Your task to perform on an android device: open app "The Home Depot" Image 0: 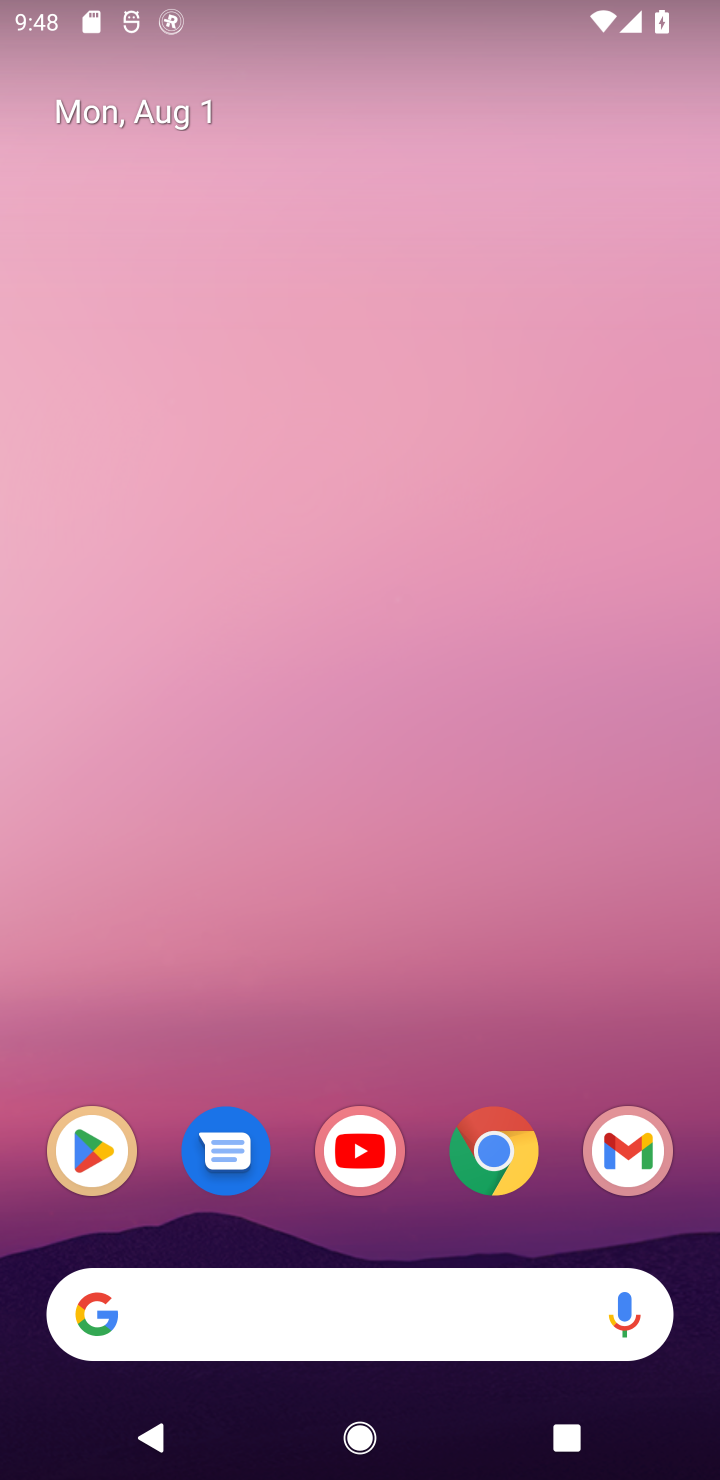
Step 0: click (62, 1175)
Your task to perform on an android device: open app "The Home Depot" Image 1: 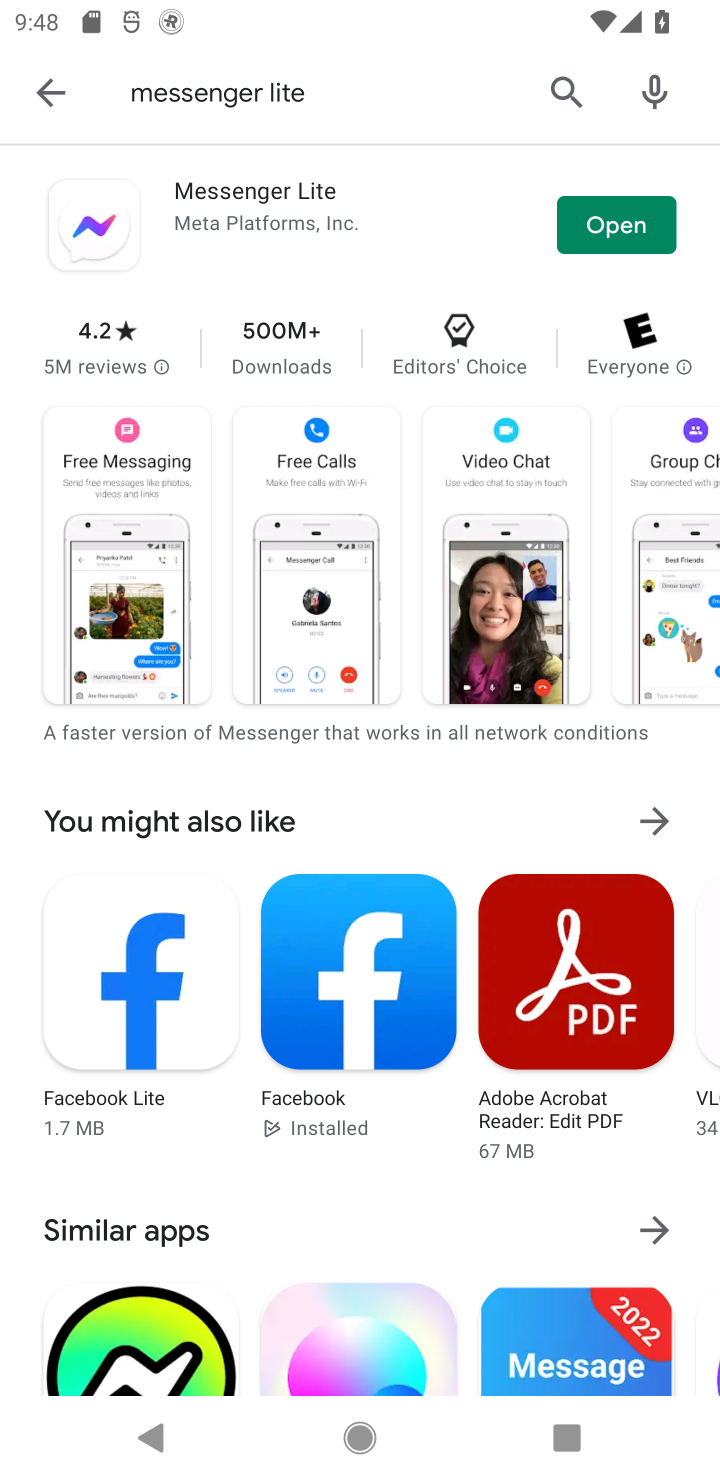
Step 1: click (568, 109)
Your task to perform on an android device: open app "The Home Depot" Image 2: 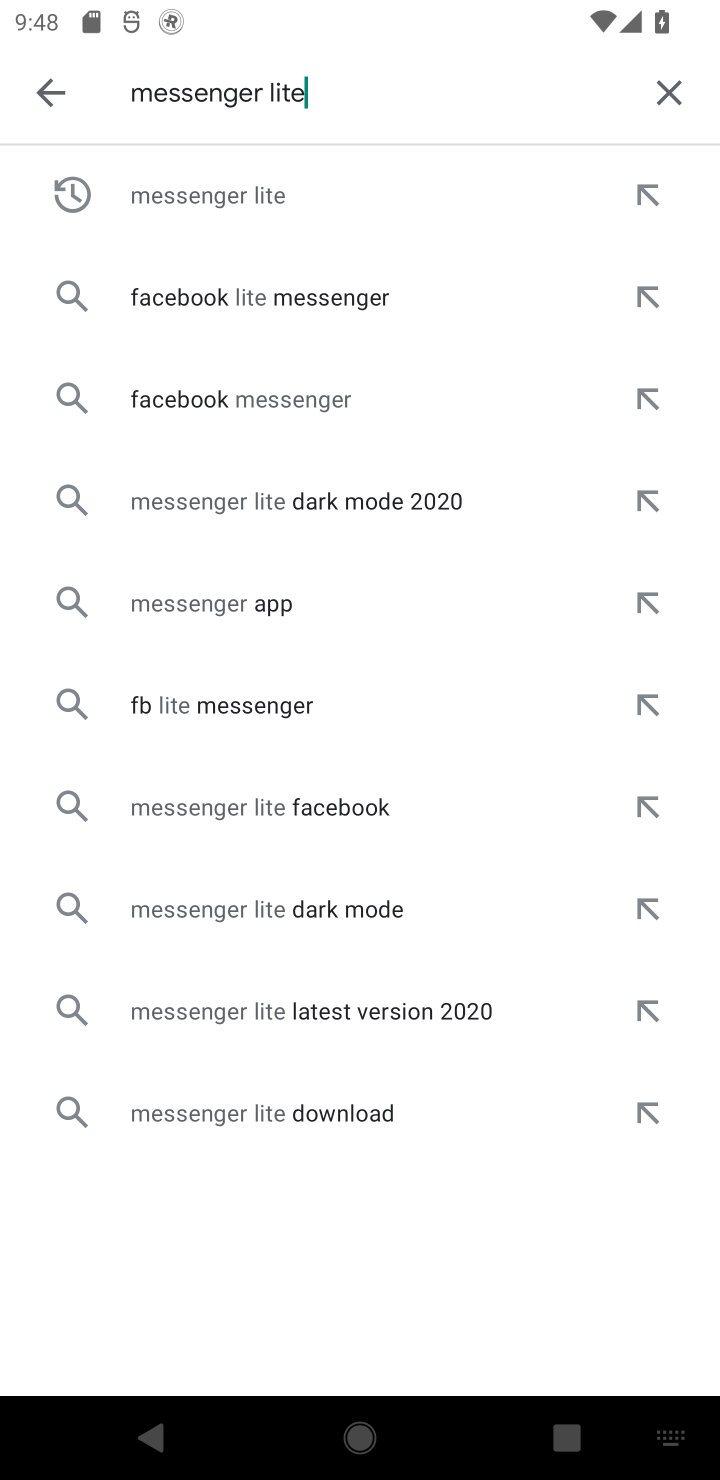
Step 2: click (657, 94)
Your task to perform on an android device: open app "The Home Depot" Image 3: 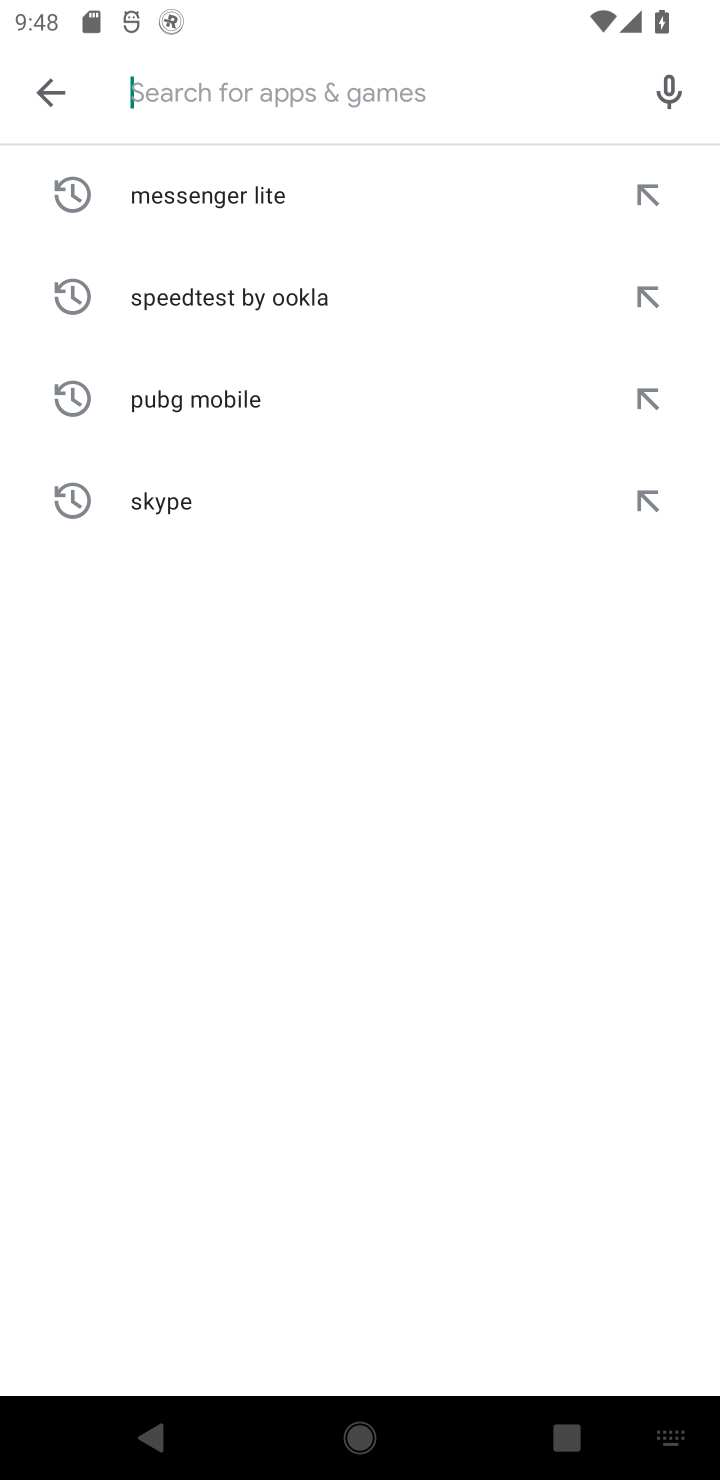
Step 3: type "The Home Depot"
Your task to perform on an android device: open app "The Home Depot" Image 4: 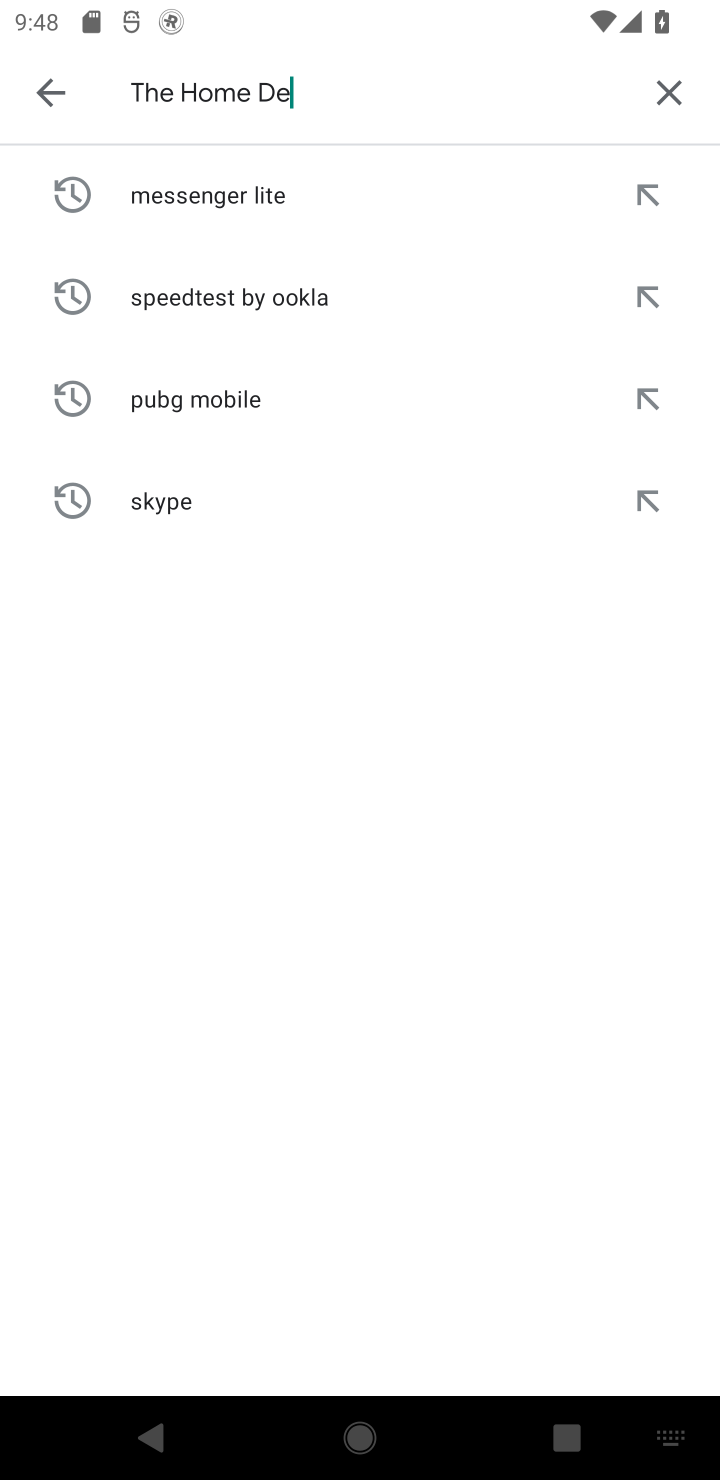
Step 4: type ""
Your task to perform on an android device: open app "The Home Depot" Image 5: 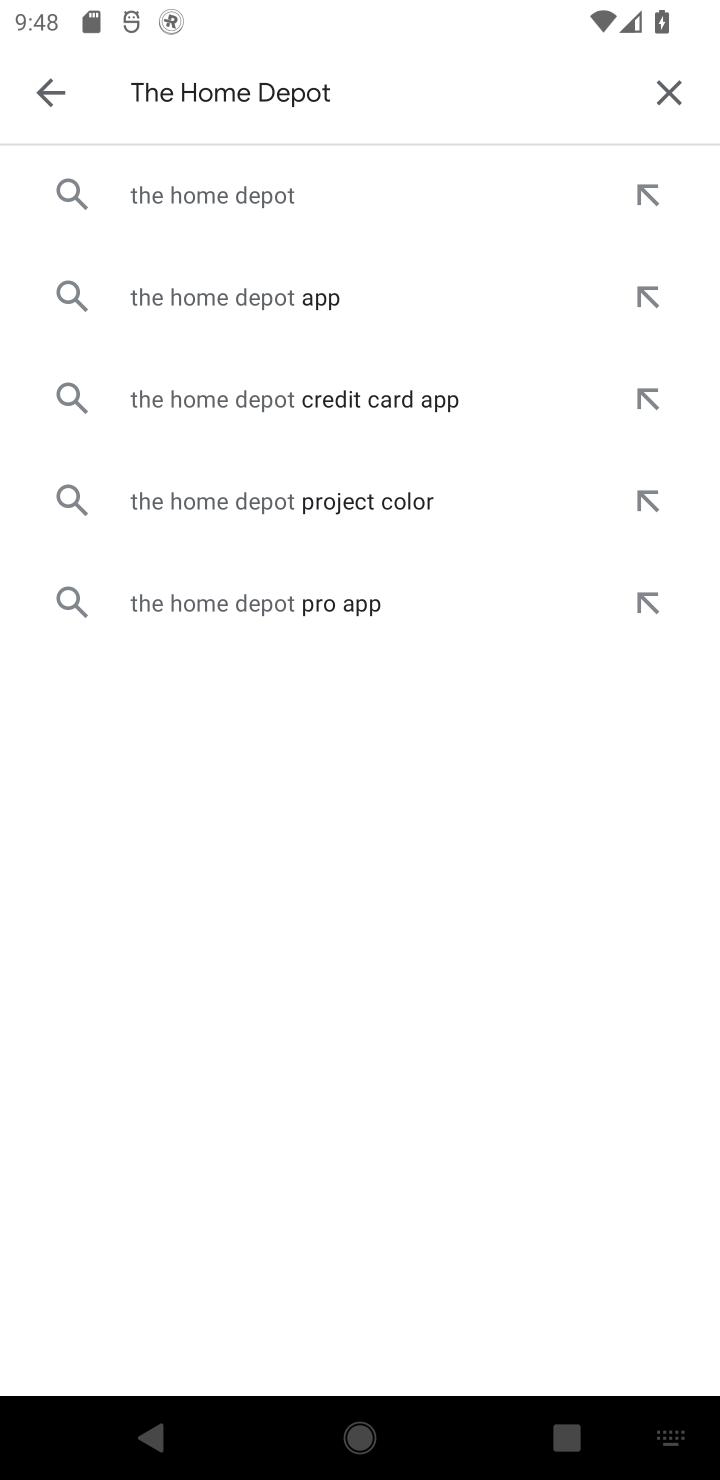
Step 5: click (263, 202)
Your task to perform on an android device: open app "The Home Depot" Image 6: 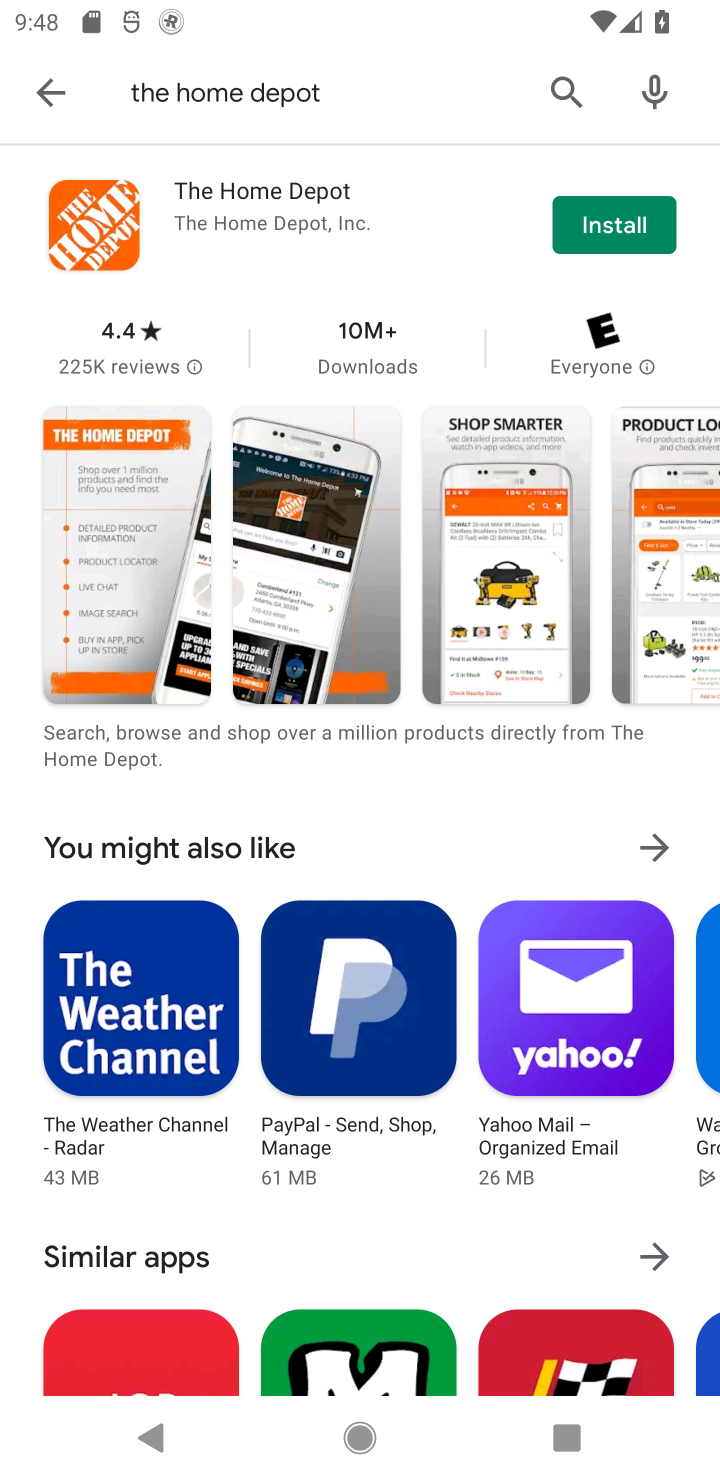
Step 6: task complete